Your task to perform on an android device: clear all cookies in the chrome app Image 0: 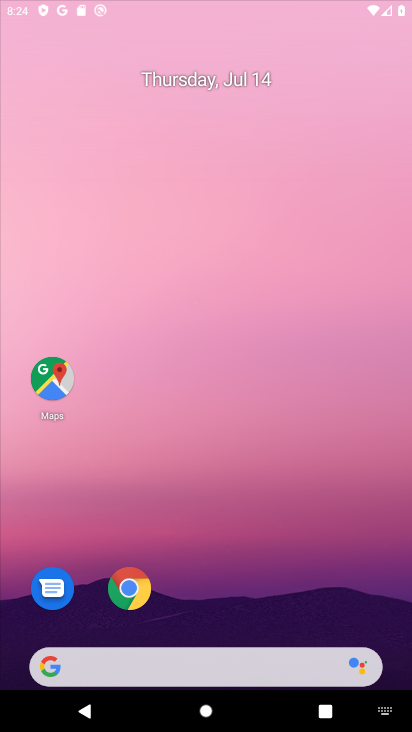
Step 0: click (203, 322)
Your task to perform on an android device: clear all cookies in the chrome app Image 1: 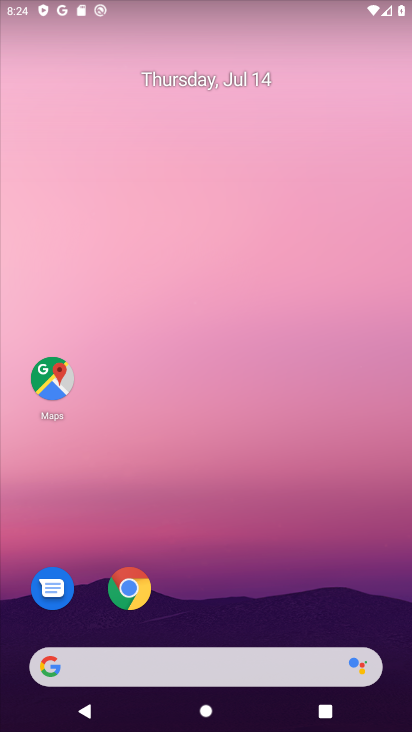
Step 1: drag from (253, 567) to (222, 111)
Your task to perform on an android device: clear all cookies in the chrome app Image 2: 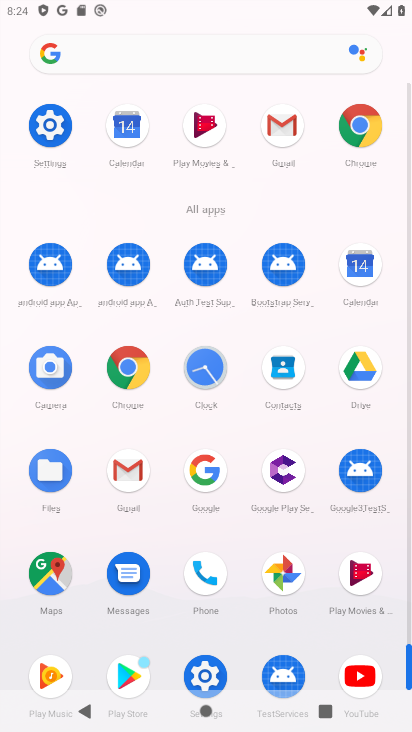
Step 2: click (127, 369)
Your task to perform on an android device: clear all cookies in the chrome app Image 3: 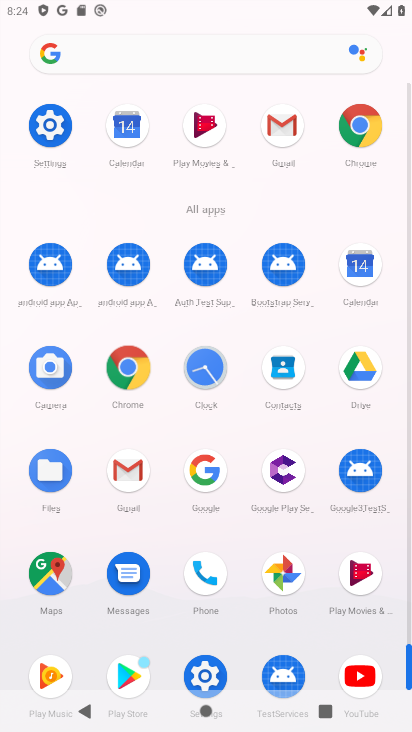
Step 3: click (127, 369)
Your task to perform on an android device: clear all cookies in the chrome app Image 4: 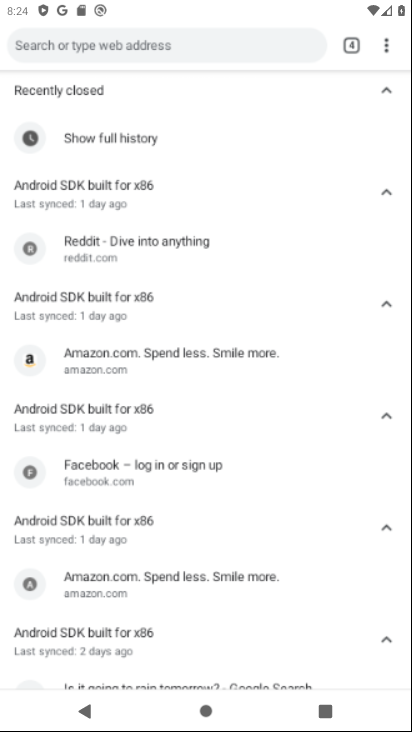
Step 4: click (127, 369)
Your task to perform on an android device: clear all cookies in the chrome app Image 5: 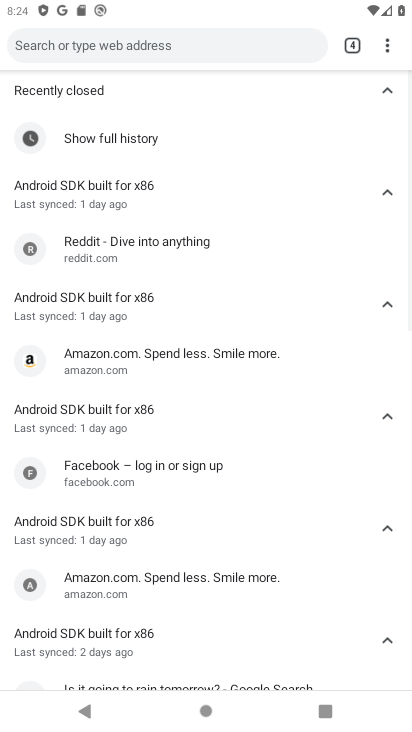
Step 5: drag from (384, 48) to (210, 87)
Your task to perform on an android device: clear all cookies in the chrome app Image 6: 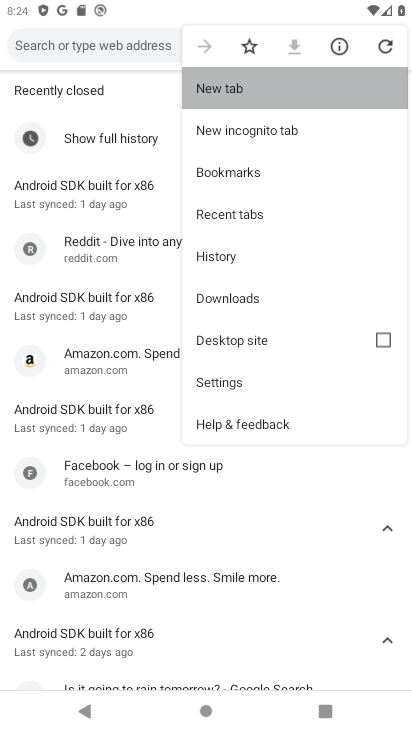
Step 6: click (213, 87)
Your task to perform on an android device: clear all cookies in the chrome app Image 7: 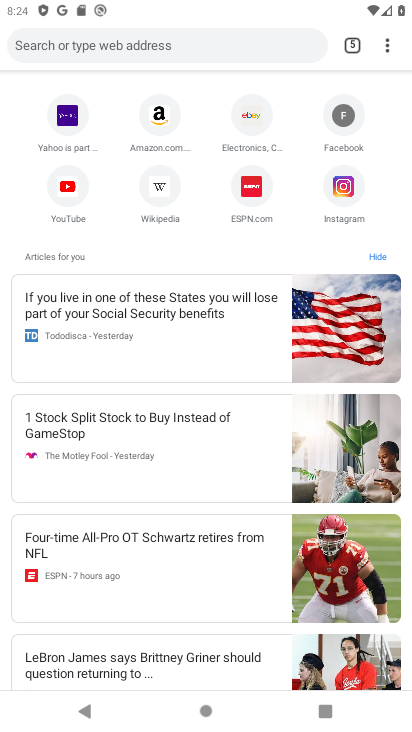
Step 7: drag from (387, 52) to (217, 393)
Your task to perform on an android device: clear all cookies in the chrome app Image 8: 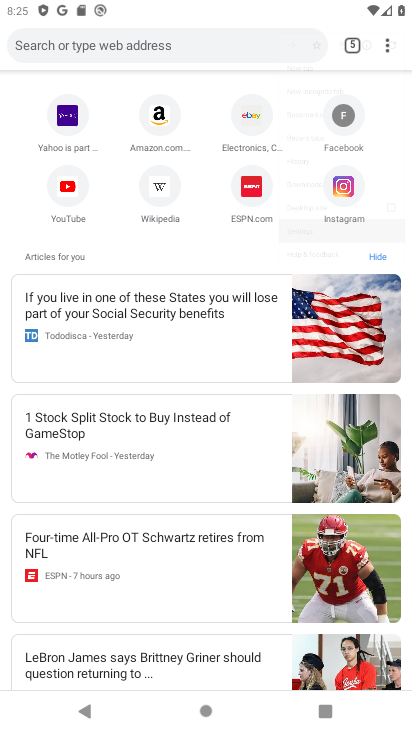
Step 8: click (225, 389)
Your task to perform on an android device: clear all cookies in the chrome app Image 9: 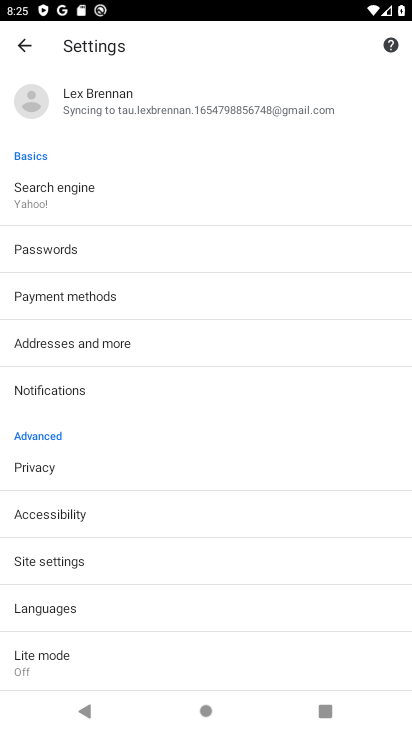
Step 9: click (47, 560)
Your task to perform on an android device: clear all cookies in the chrome app Image 10: 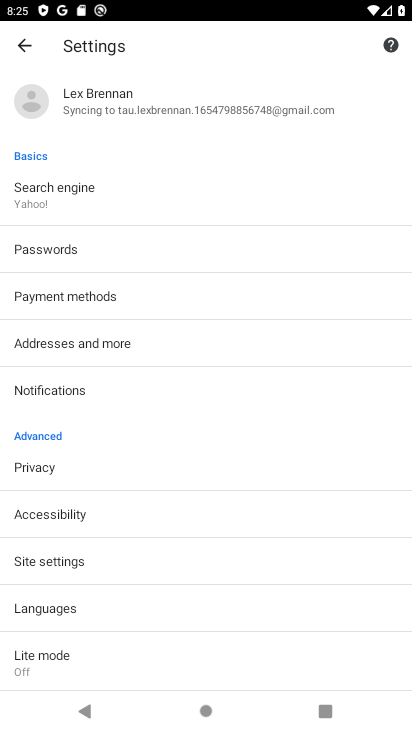
Step 10: click (47, 562)
Your task to perform on an android device: clear all cookies in the chrome app Image 11: 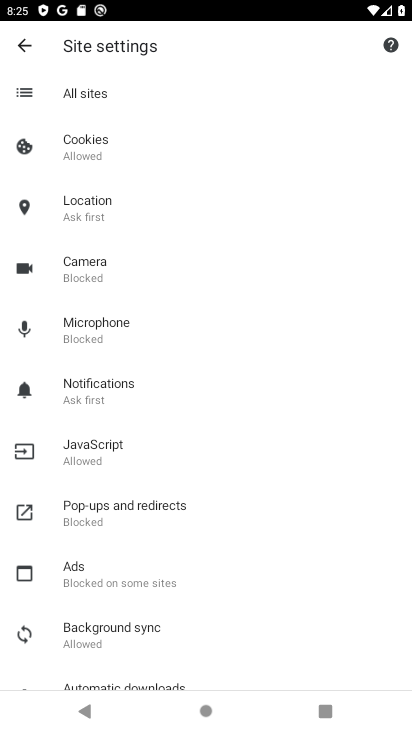
Step 11: click (74, 143)
Your task to perform on an android device: clear all cookies in the chrome app Image 12: 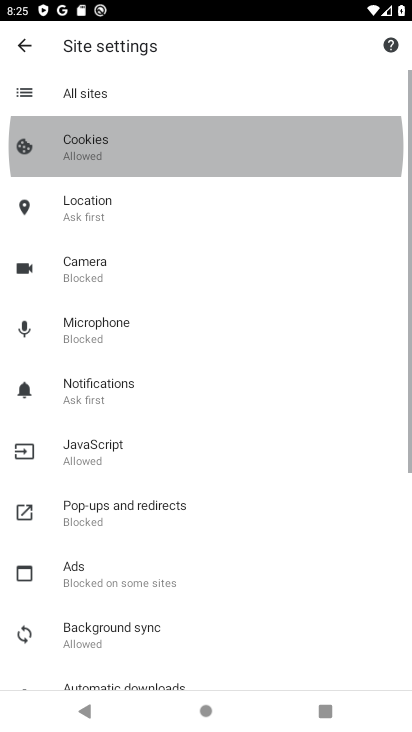
Step 12: click (60, 152)
Your task to perform on an android device: clear all cookies in the chrome app Image 13: 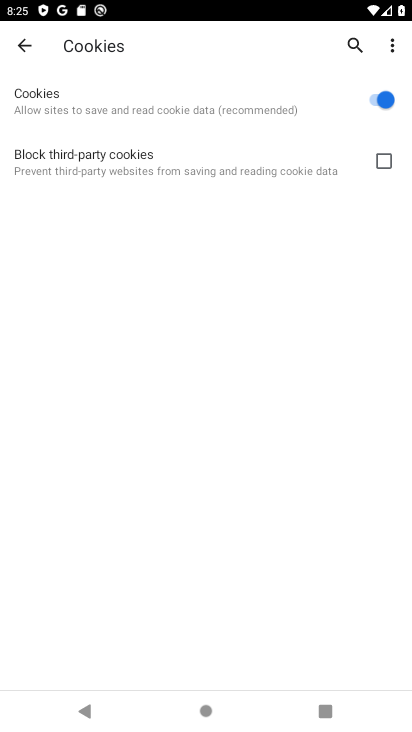
Step 13: task complete